Your task to perform on an android device: Go to network settings Image 0: 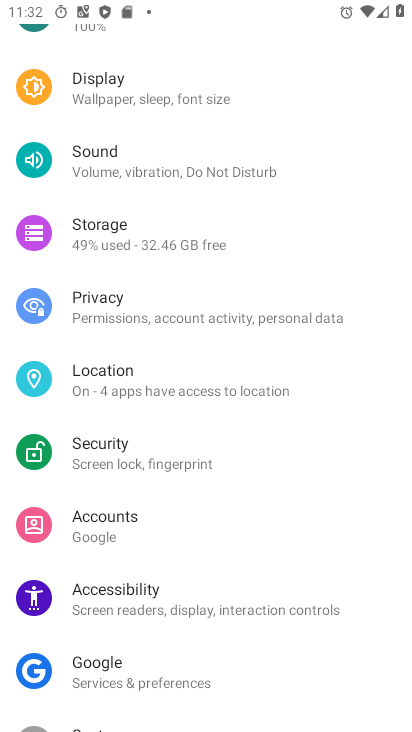
Step 0: drag from (96, 181) to (144, 515)
Your task to perform on an android device: Go to network settings Image 1: 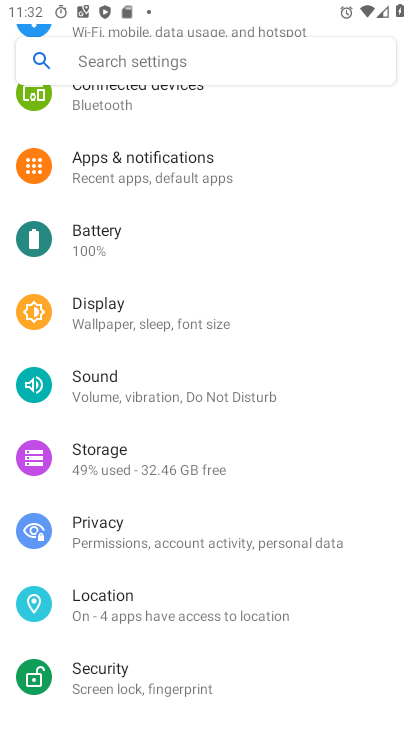
Step 1: drag from (166, 119) to (172, 385)
Your task to perform on an android device: Go to network settings Image 2: 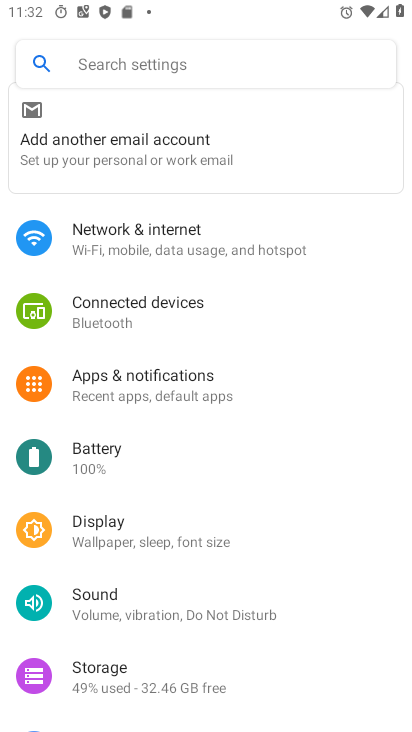
Step 2: click (161, 231)
Your task to perform on an android device: Go to network settings Image 3: 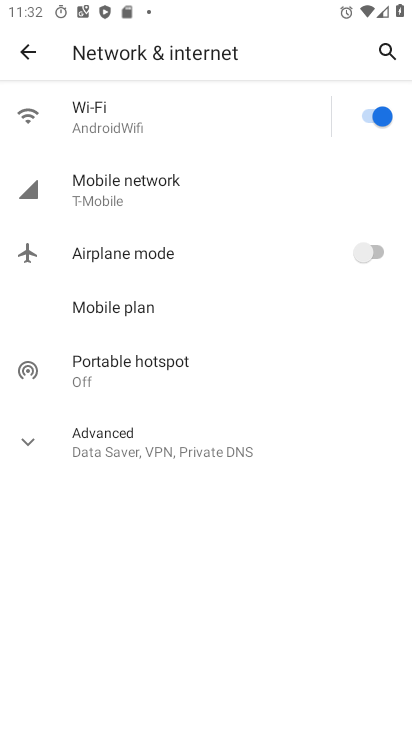
Step 3: click (171, 190)
Your task to perform on an android device: Go to network settings Image 4: 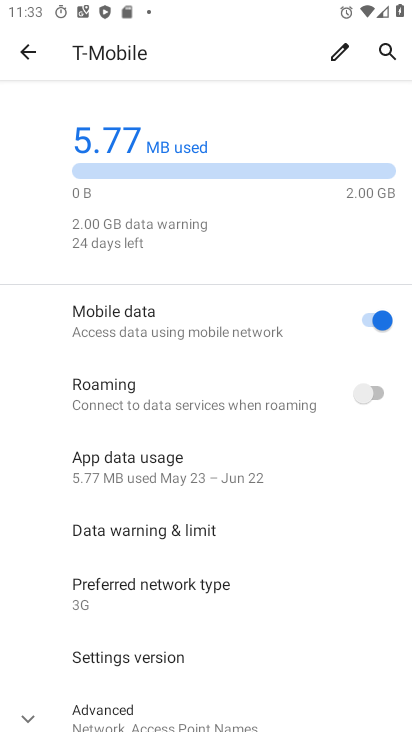
Step 4: task complete